Your task to perform on an android device: Go to CNN.com Image 0: 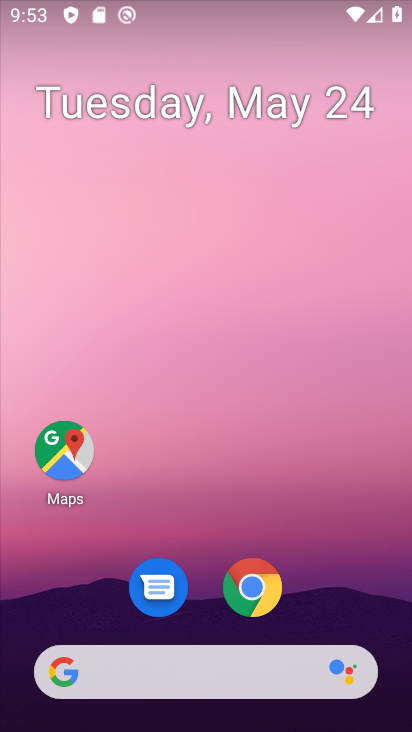
Step 0: click (258, 583)
Your task to perform on an android device: Go to CNN.com Image 1: 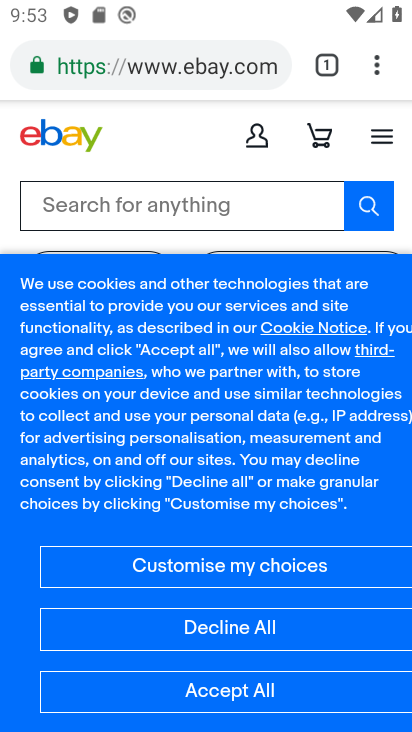
Step 1: click (214, 69)
Your task to perform on an android device: Go to CNN.com Image 2: 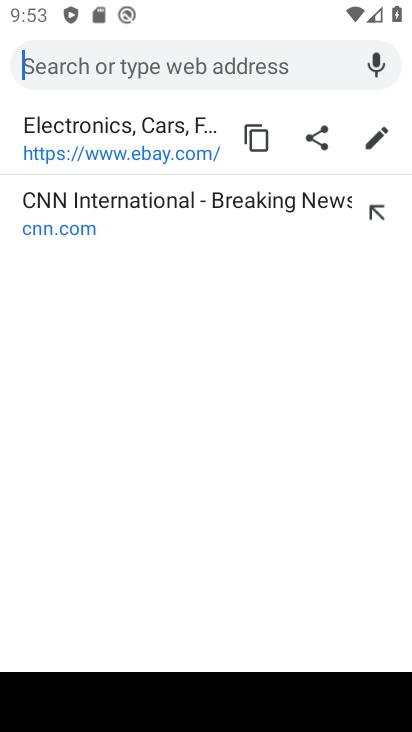
Step 2: type " CNN.com"
Your task to perform on an android device: Go to CNN.com Image 3: 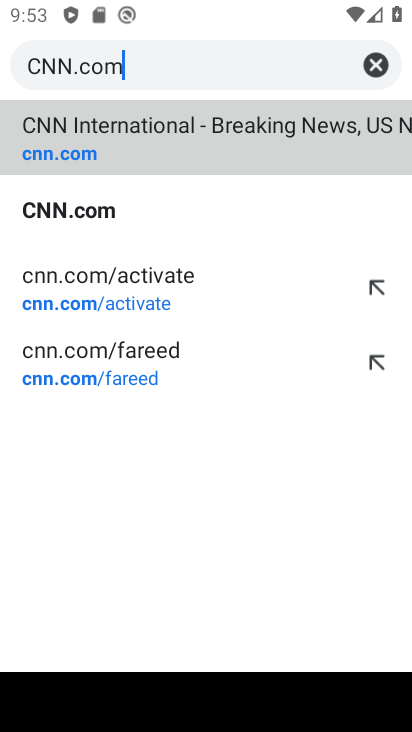
Step 3: click (223, 148)
Your task to perform on an android device: Go to CNN.com Image 4: 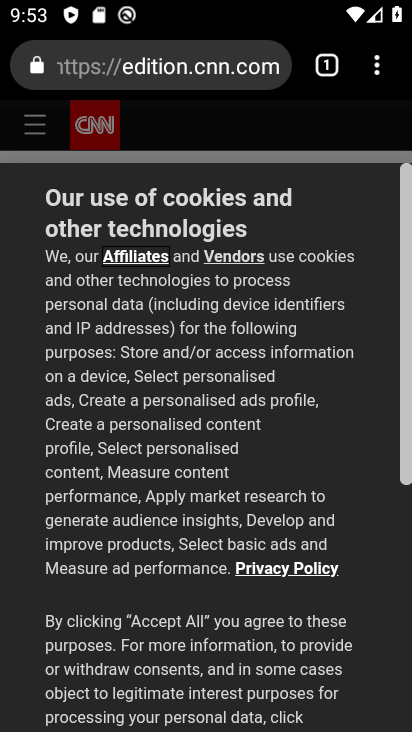
Step 4: task complete